Your task to perform on an android device: Search for the most popular books on Goodreads Image 0: 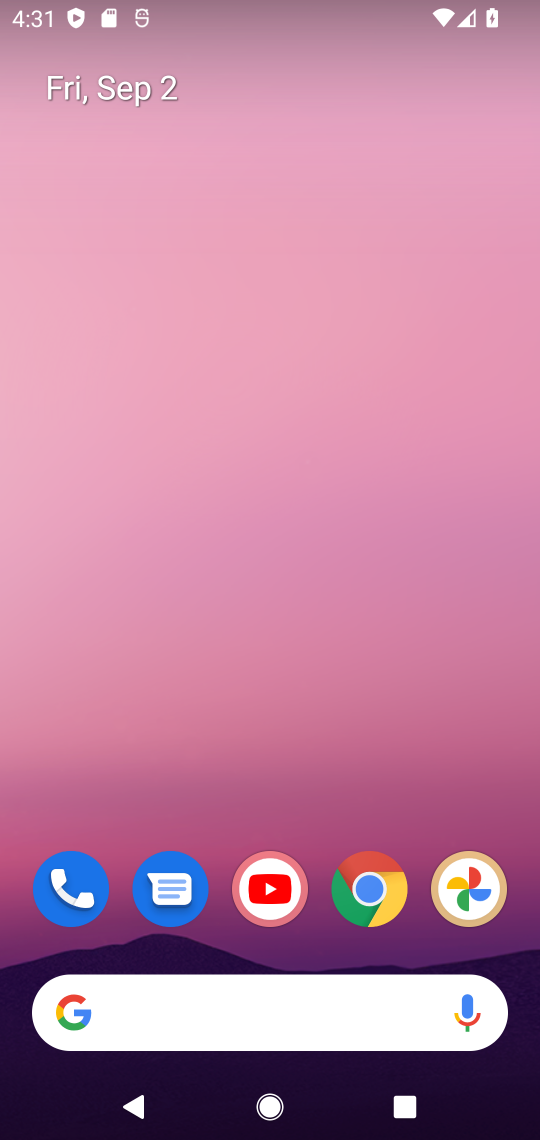
Step 0: click (354, 908)
Your task to perform on an android device: Search for the most popular books on Goodreads Image 1: 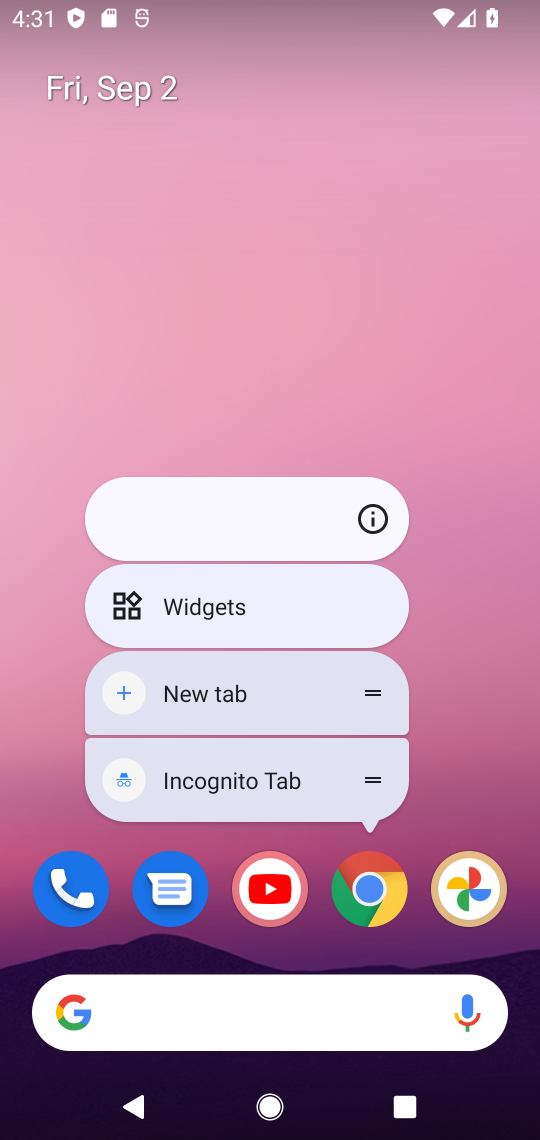
Step 1: click (354, 908)
Your task to perform on an android device: Search for the most popular books on Goodreads Image 2: 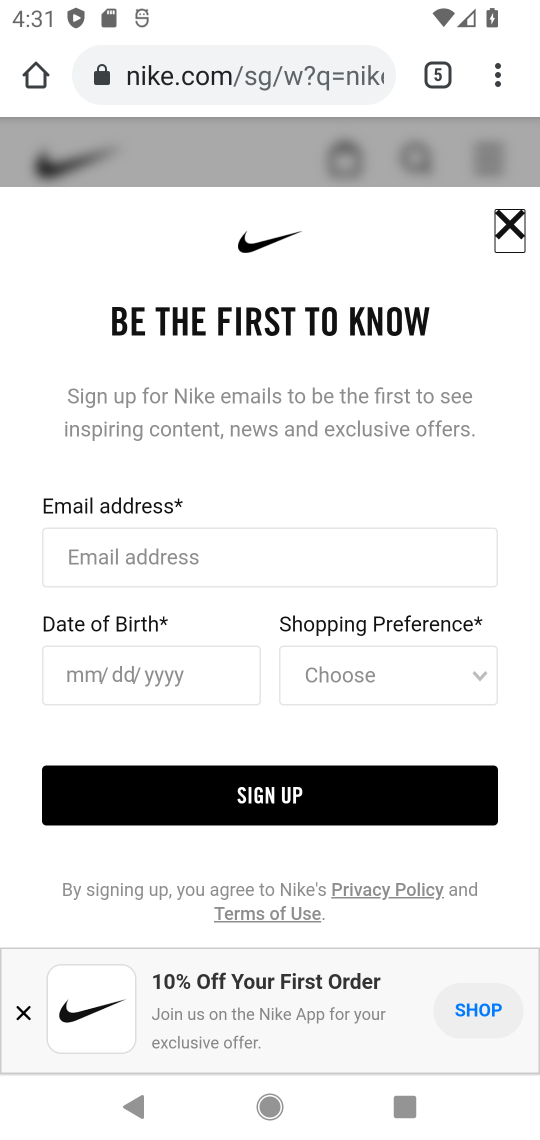
Step 2: task complete